Your task to perform on an android device: clear all cookies in the chrome app Image 0: 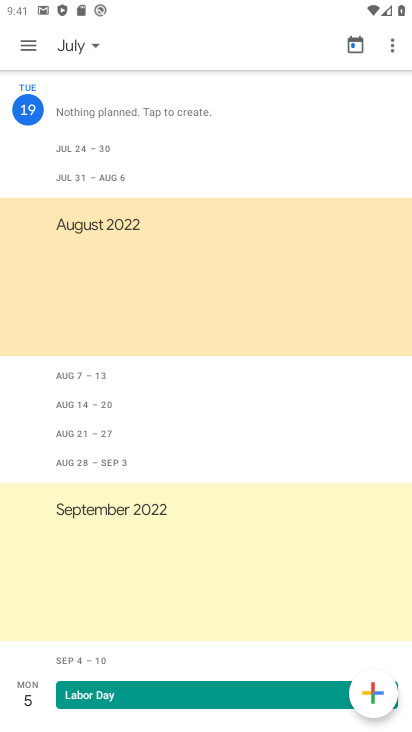
Step 0: press home button
Your task to perform on an android device: clear all cookies in the chrome app Image 1: 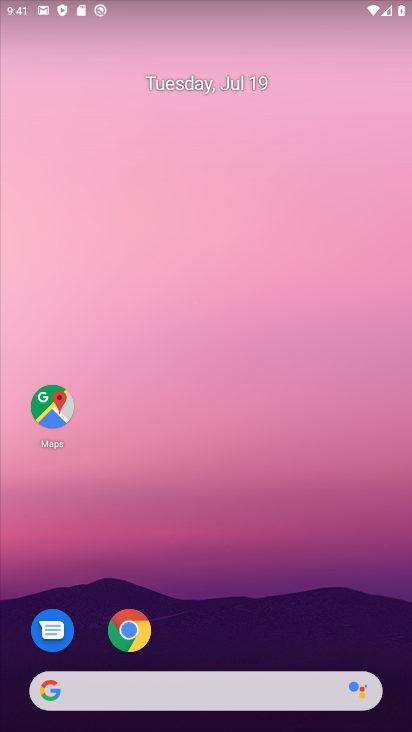
Step 1: drag from (337, 638) to (311, 14)
Your task to perform on an android device: clear all cookies in the chrome app Image 2: 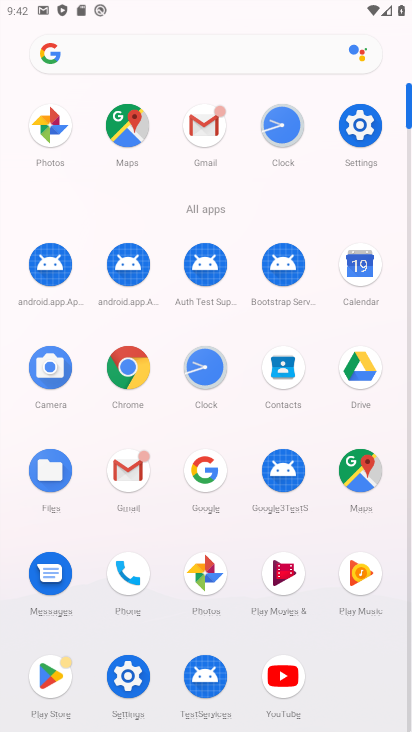
Step 2: click (125, 371)
Your task to perform on an android device: clear all cookies in the chrome app Image 3: 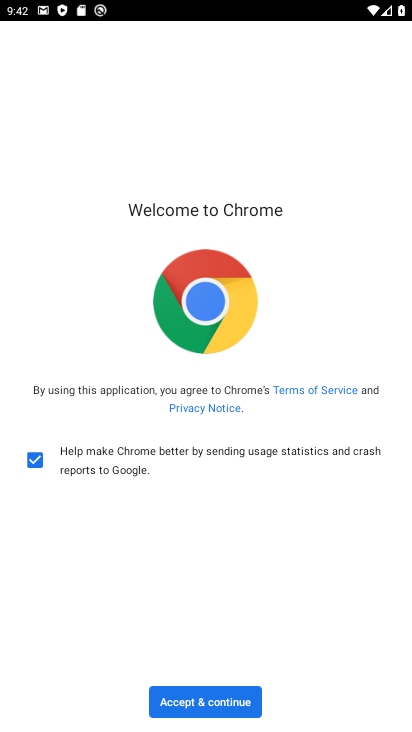
Step 3: click (204, 695)
Your task to perform on an android device: clear all cookies in the chrome app Image 4: 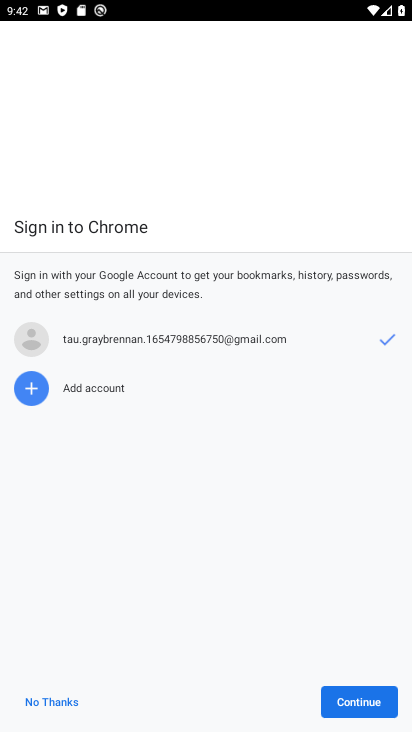
Step 4: click (342, 706)
Your task to perform on an android device: clear all cookies in the chrome app Image 5: 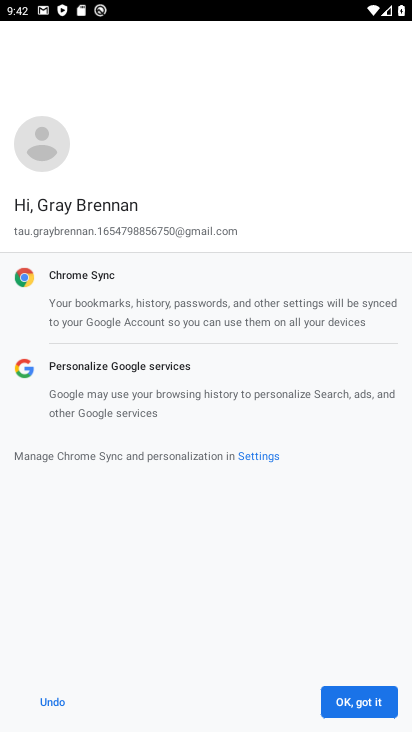
Step 5: click (369, 704)
Your task to perform on an android device: clear all cookies in the chrome app Image 6: 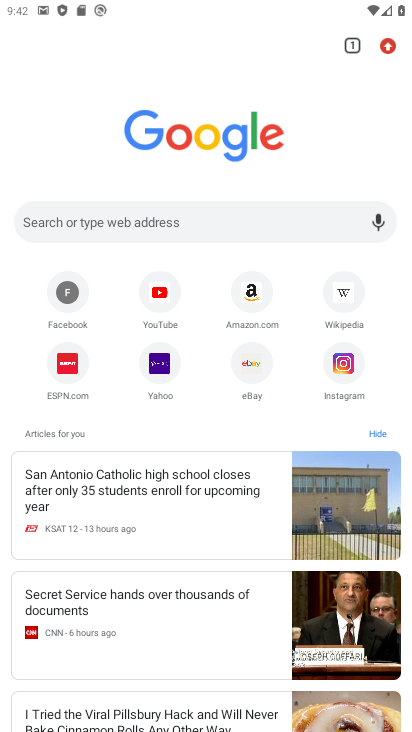
Step 6: click (388, 57)
Your task to perform on an android device: clear all cookies in the chrome app Image 7: 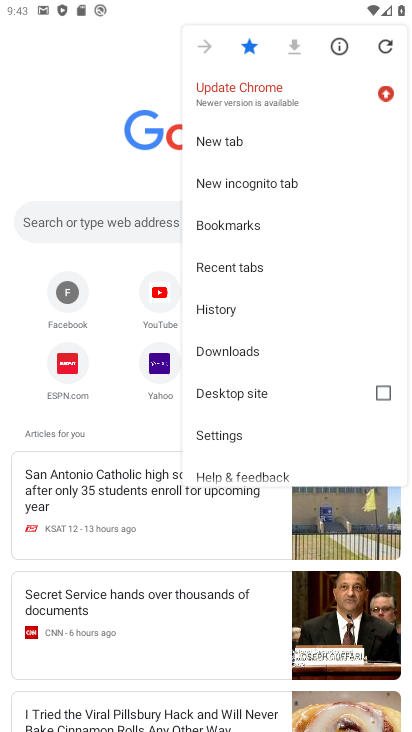
Step 7: click (227, 315)
Your task to perform on an android device: clear all cookies in the chrome app Image 8: 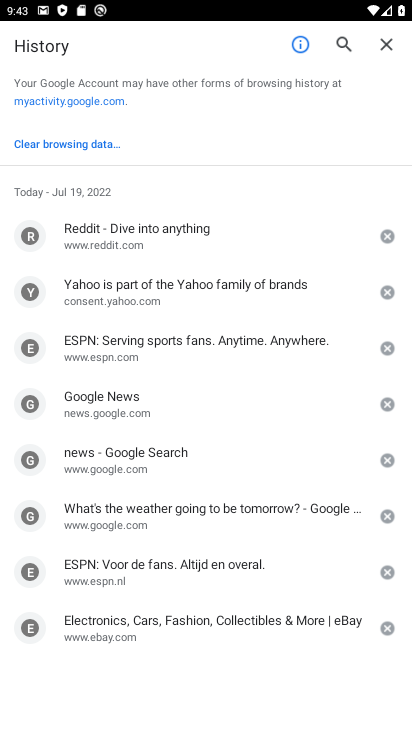
Step 8: click (46, 149)
Your task to perform on an android device: clear all cookies in the chrome app Image 9: 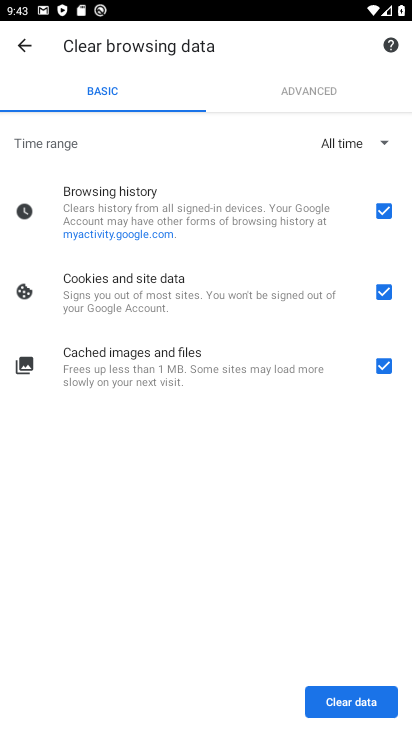
Step 9: click (383, 372)
Your task to perform on an android device: clear all cookies in the chrome app Image 10: 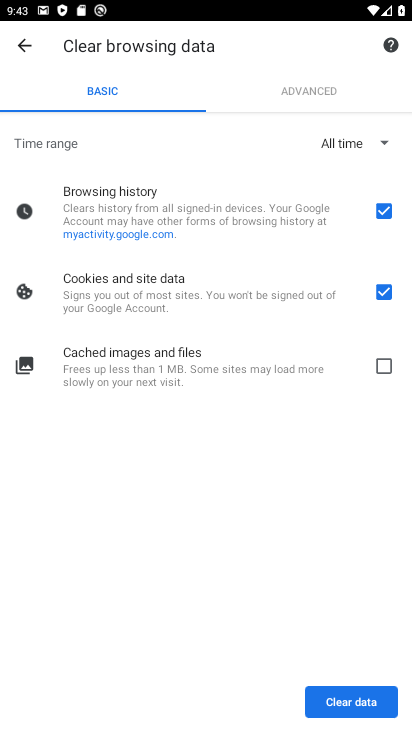
Step 10: click (389, 213)
Your task to perform on an android device: clear all cookies in the chrome app Image 11: 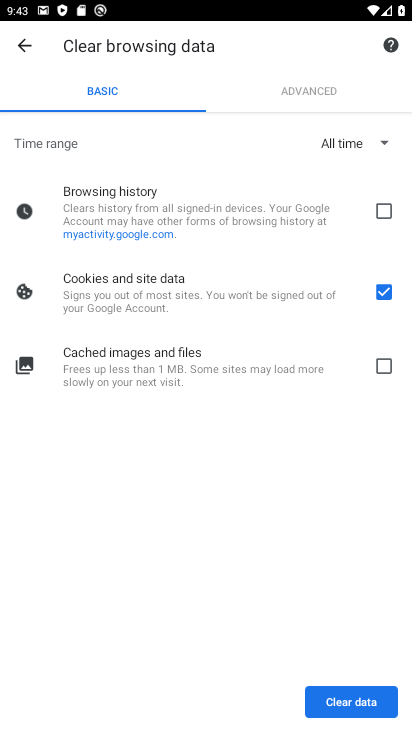
Step 11: click (351, 696)
Your task to perform on an android device: clear all cookies in the chrome app Image 12: 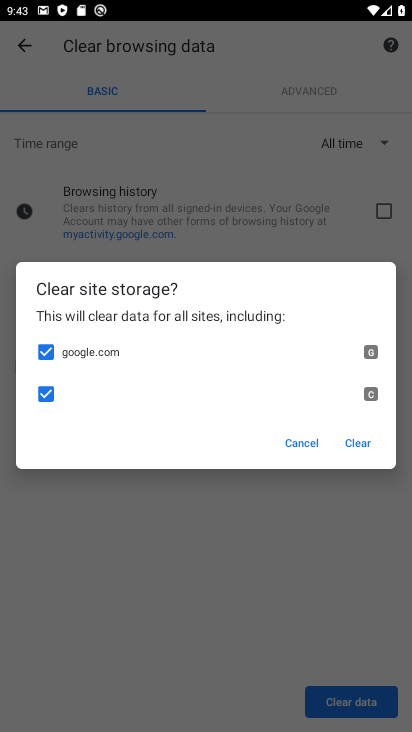
Step 12: click (354, 436)
Your task to perform on an android device: clear all cookies in the chrome app Image 13: 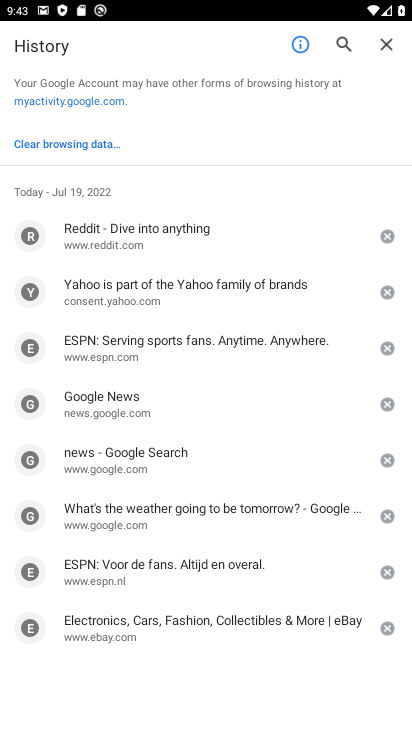
Step 13: task complete